Your task to perform on an android device: Open calendar and show me the first week of next month Image 0: 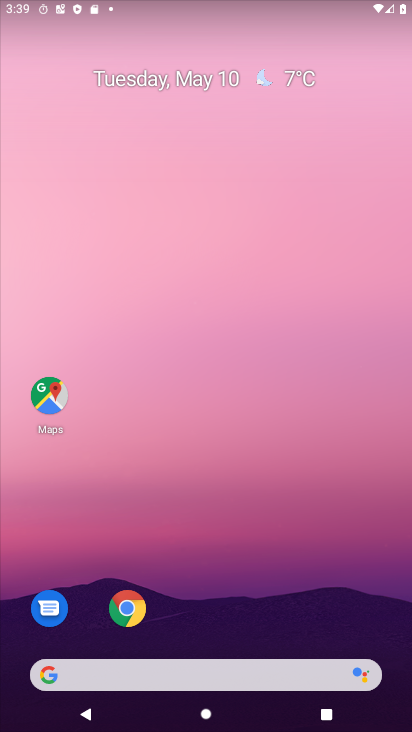
Step 0: drag from (328, 631) to (299, 0)
Your task to perform on an android device: Open calendar and show me the first week of next month Image 1: 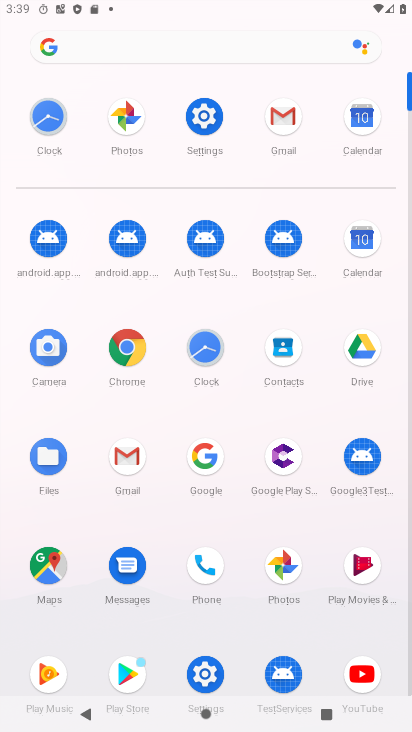
Step 1: click (364, 120)
Your task to perform on an android device: Open calendar and show me the first week of next month Image 2: 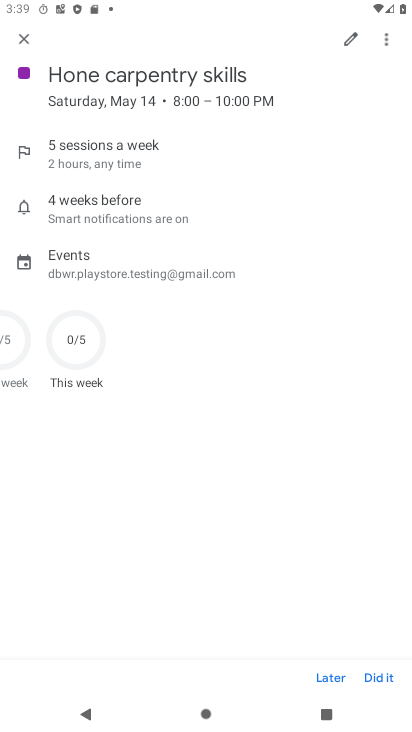
Step 2: click (24, 44)
Your task to perform on an android device: Open calendar and show me the first week of next month Image 3: 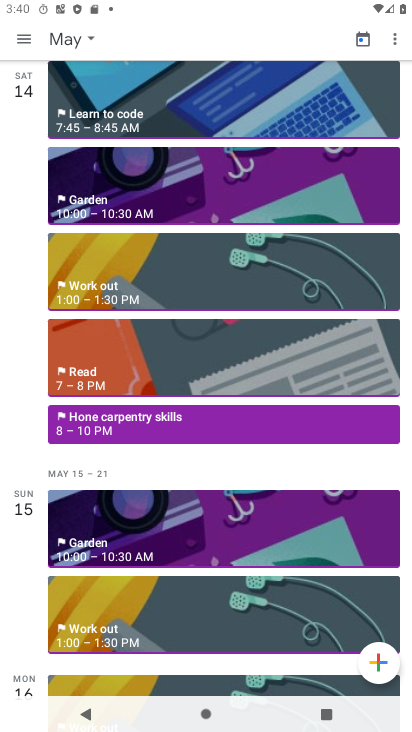
Step 3: click (87, 37)
Your task to perform on an android device: Open calendar and show me the first week of next month Image 4: 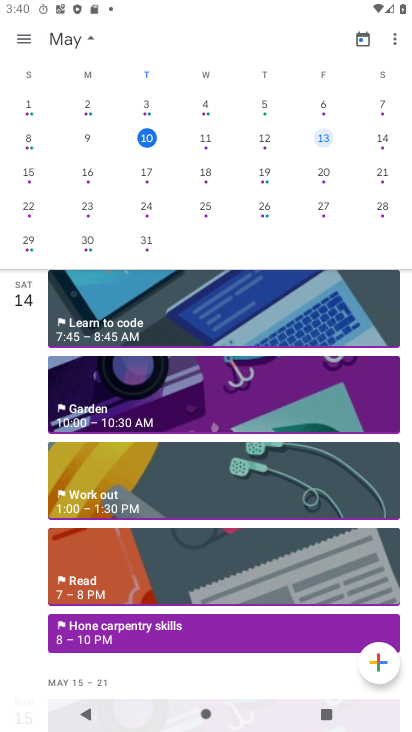
Step 4: drag from (338, 190) to (17, 243)
Your task to perform on an android device: Open calendar and show me the first week of next month Image 5: 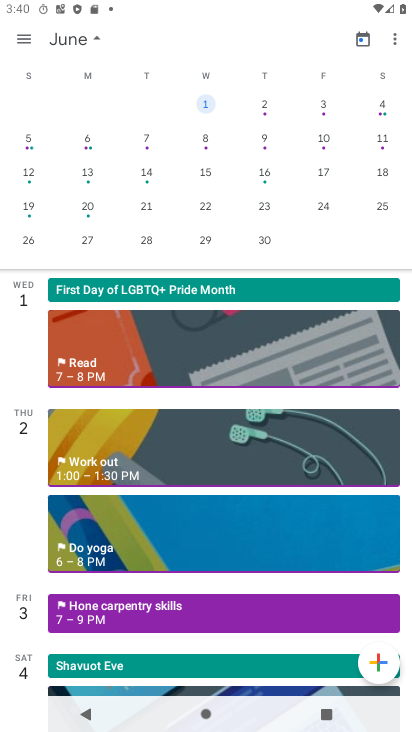
Step 5: click (23, 35)
Your task to perform on an android device: Open calendar and show me the first week of next month Image 6: 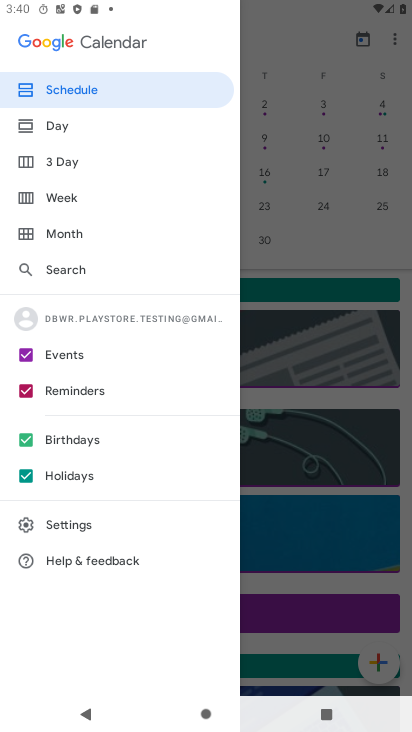
Step 6: click (55, 198)
Your task to perform on an android device: Open calendar and show me the first week of next month Image 7: 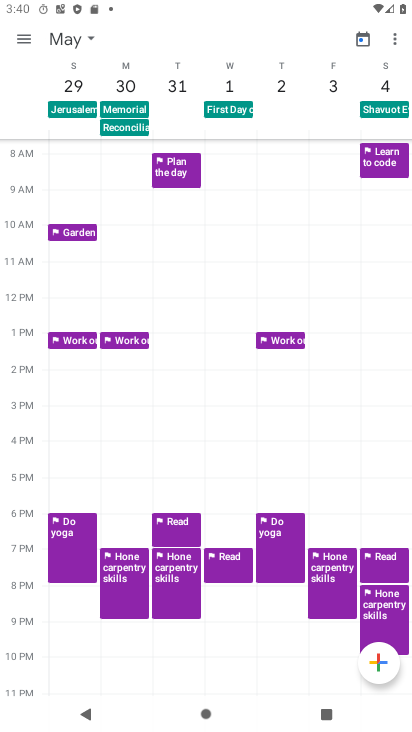
Step 7: task complete